Your task to perform on an android device: manage bookmarks in the chrome app Image 0: 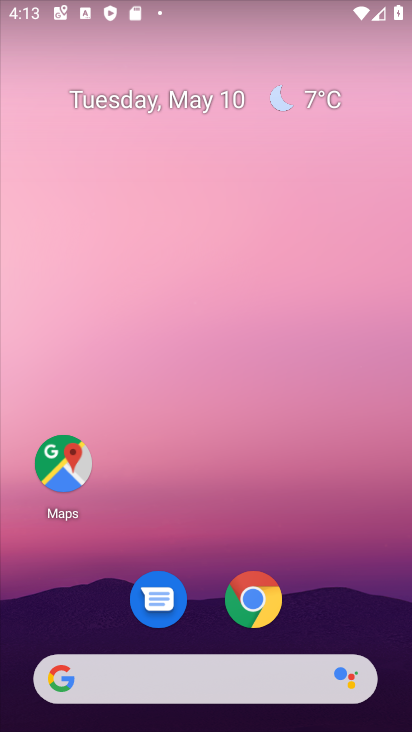
Step 0: click (257, 604)
Your task to perform on an android device: manage bookmarks in the chrome app Image 1: 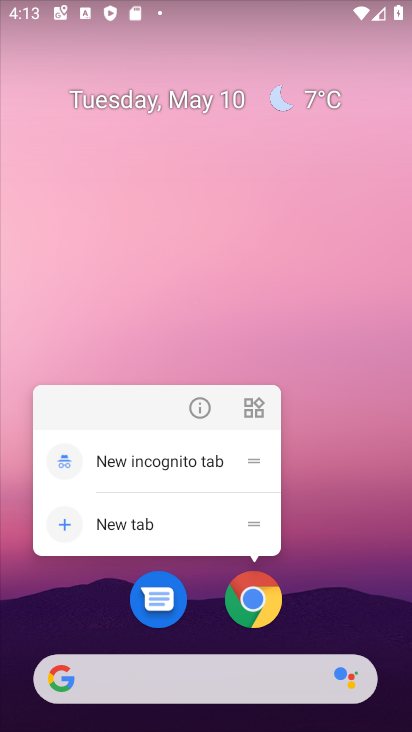
Step 1: click (260, 612)
Your task to perform on an android device: manage bookmarks in the chrome app Image 2: 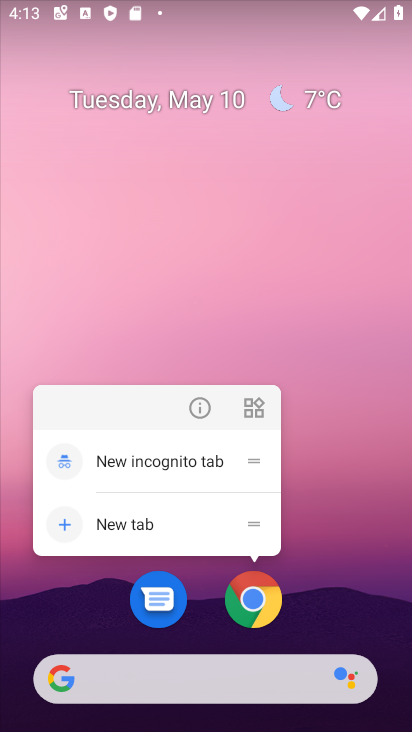
Step 2: click (260, 612)
Your task to perform on an android device: manage bookmarks in the chrome app Image 3: 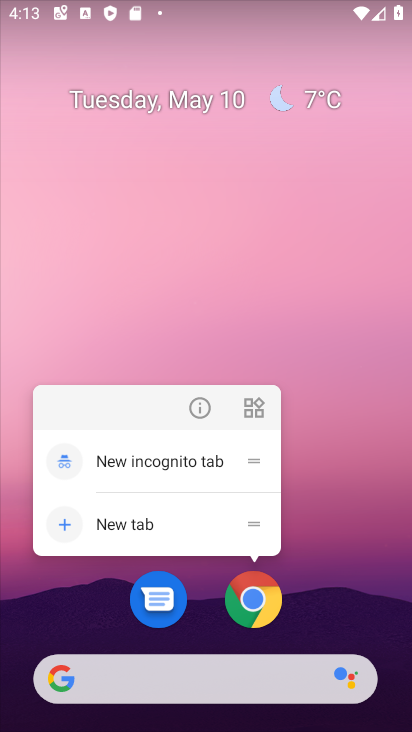
Step 3: click (262, 611)
Your task to perform on an android device: manage bookmarks in the chrome app Image 4: 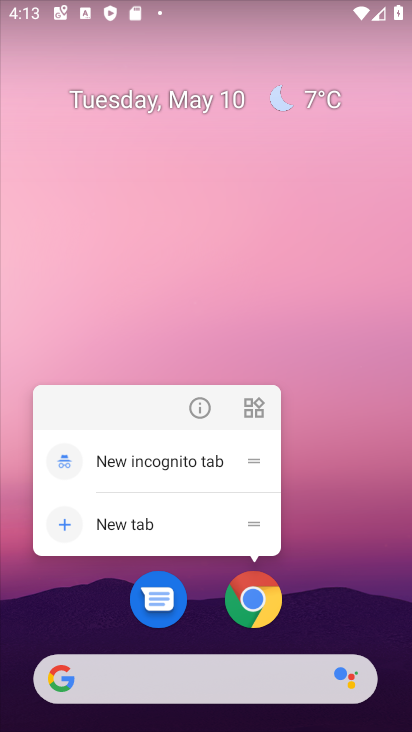
Step 4: click (264, 615)
Your task to perform on an android device: manage bookmarks in the chrome app Image 5: 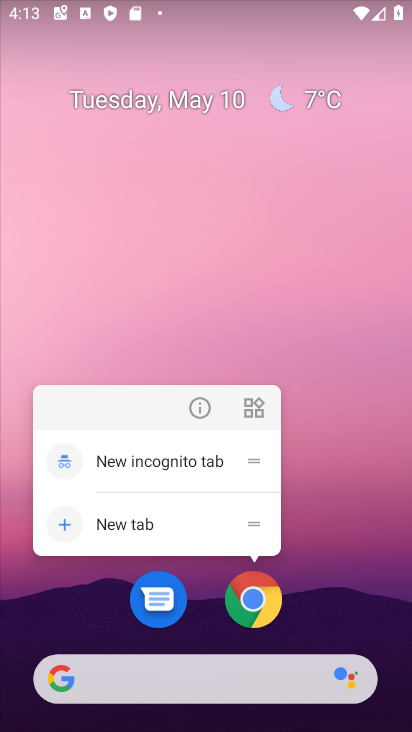
Step 5: click (276, 605)
Your task to perform on an android device: manage bookmarks in the chrome app Image 6: 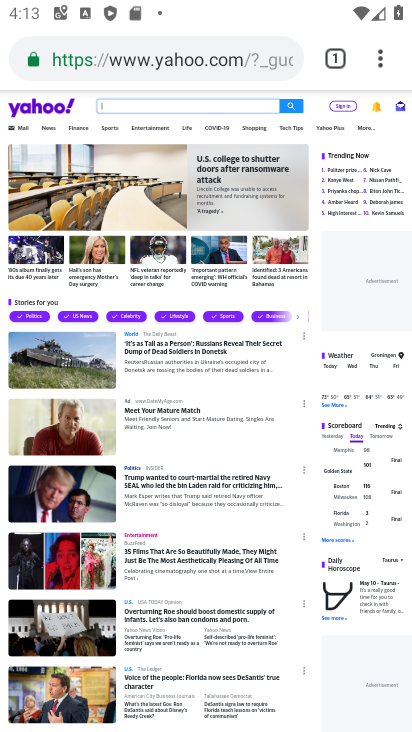
Step 6: click (389, 52)
Your task to perform on an android device: manage bookmarks in the chrome app Image 7: 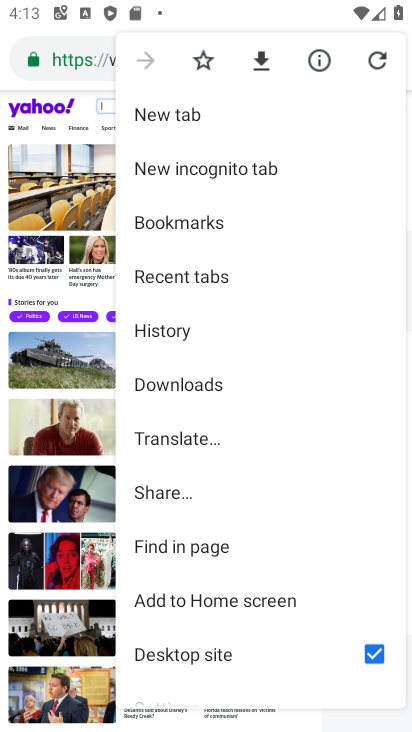
Step 7: click (238, 227)
Your task to perform on an android device: manage bookmarks in the chrome app Image 8: 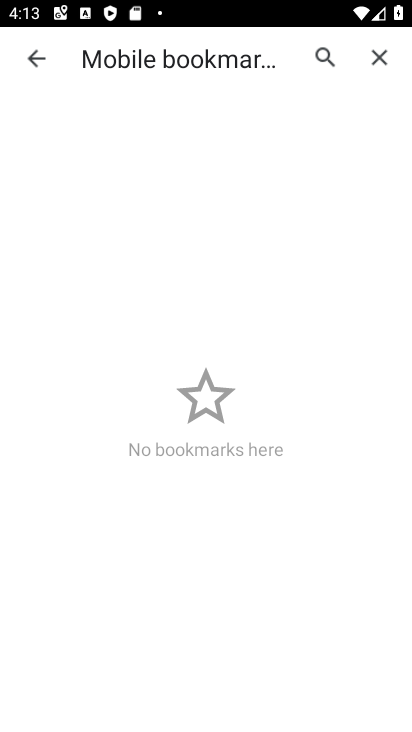
Step 8: task complete